Your task to perform on an android device: allow notifications from all sites in the chrome app Image 0: 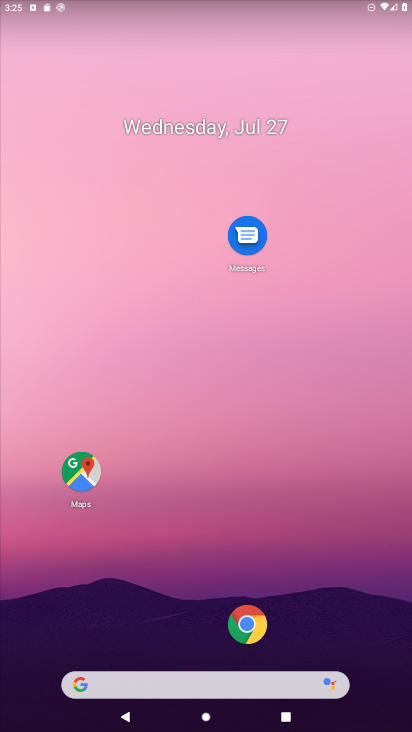
Step 0: click (239, 630)
Your task to perform on an android device: allow notifications from all sites in the chrome app Image 1: 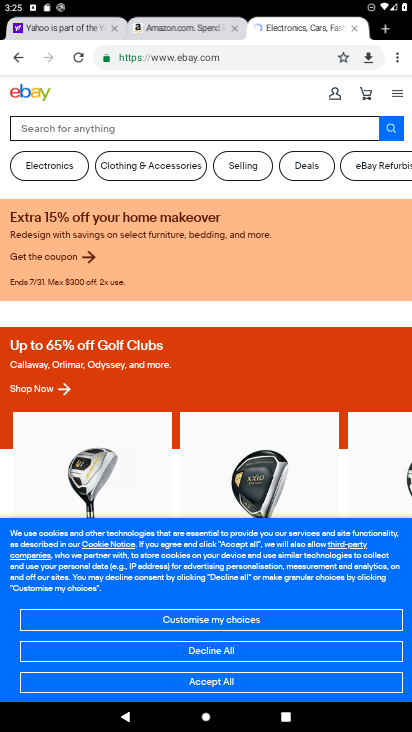
Step 1: click (403, 54)
Your task to perform on an android device: allow notifications from all sites in the chrome app Image 2: 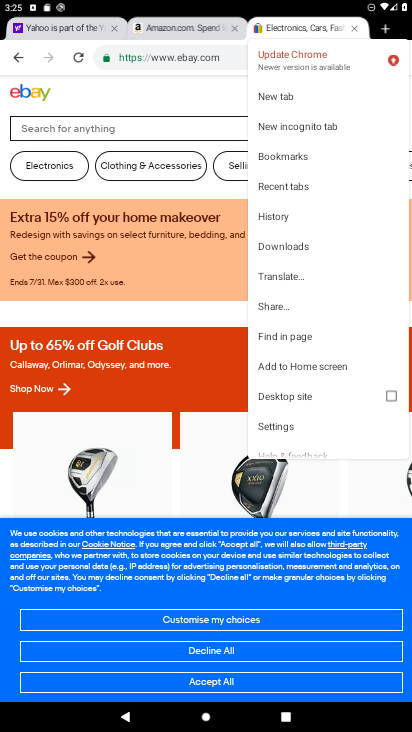
Step 2: click (286, 424)
Your task to perform on an android device: allow notifications from all sites in the chrome app Image 3: 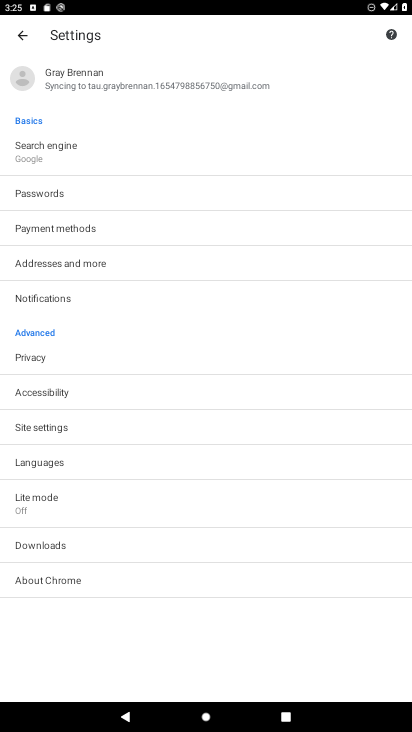
Step 3: click (96, 306)
Your task to perform on an android device: allow notifications from all sites in the chrome app Image 4: 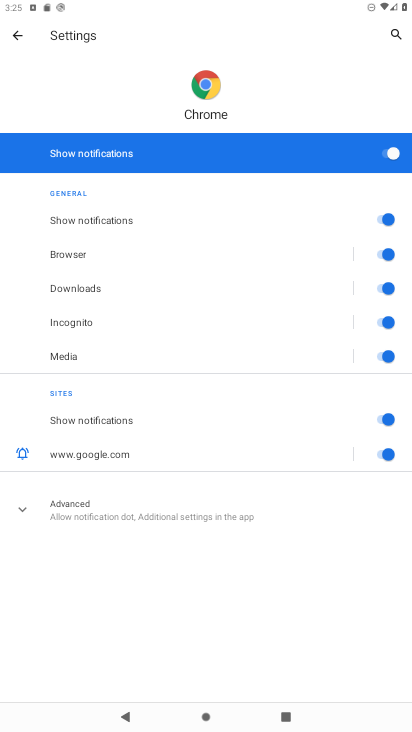
Step 4: task complete